Your task to perform on an android device: Go to network settings Image 0: 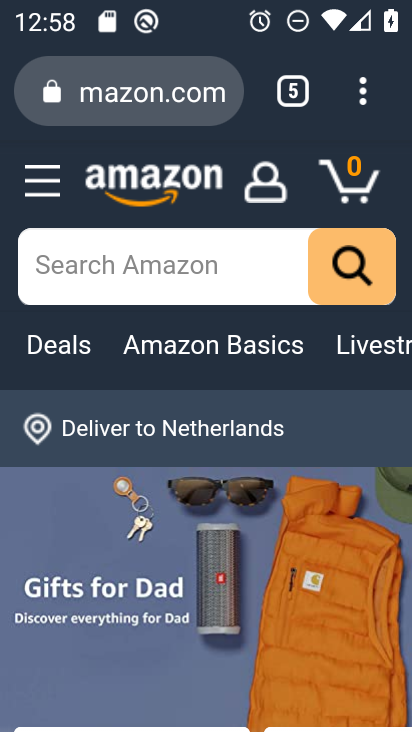
Step 0: press home button
Your task to perform on an android device: Go to network settings Image 1: 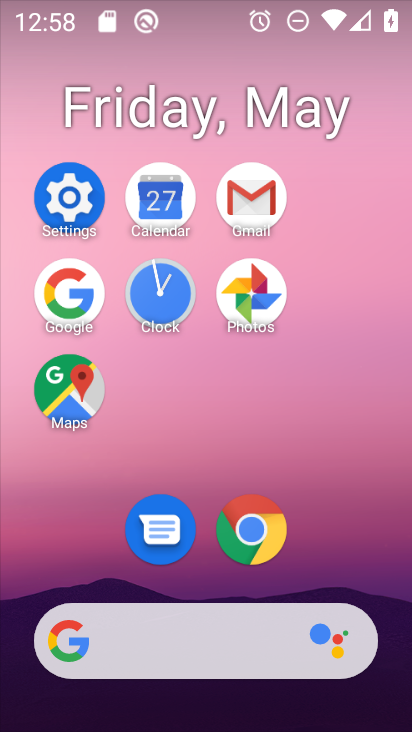
Step 1: click (62, 202)
Your task to perform on an android device: Go to network settings Image 2: 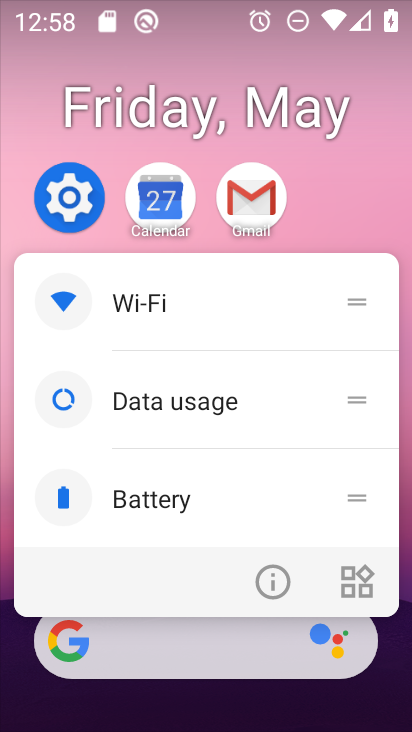
Step 2: click (83, 201)
Your task to perform on an android device: Go to network settings Image 3: 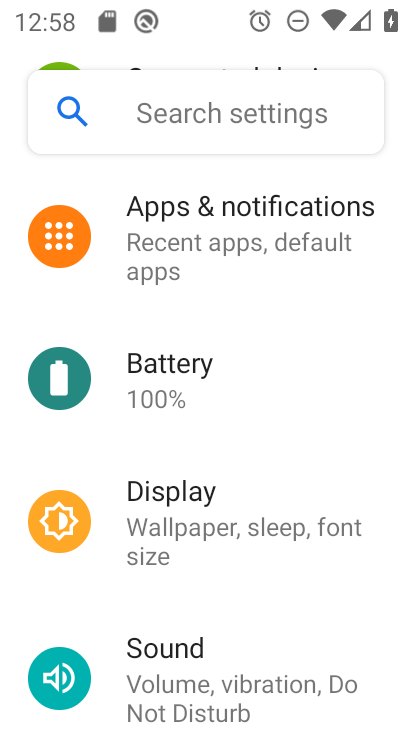
Step 3: drag from (298, 203) to (306, 720)
Your task to perform on an android device: Go to network settings Image 4: 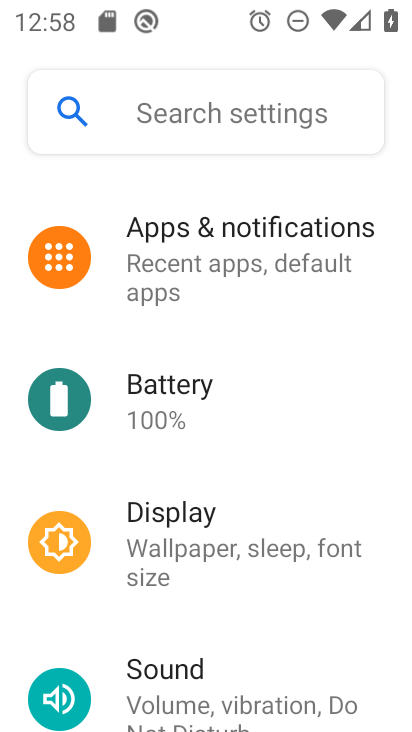
Step 4: drag from (258, 197) to (308, 627)
Your task to perform on an android device: Go to network settings Image 5: 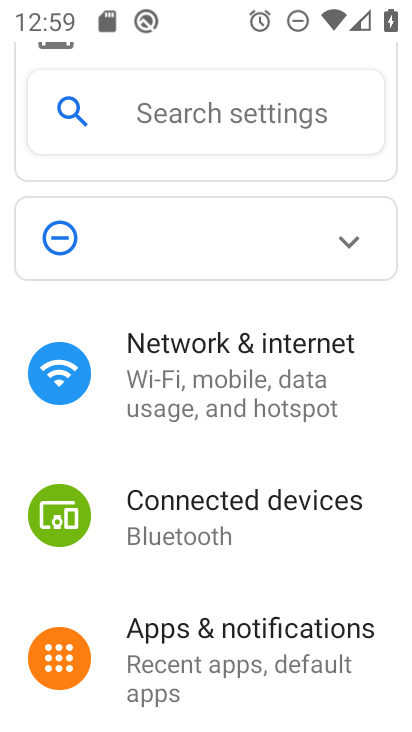
Step 5: click (269, 405)
Your task to perform on an android device: Go to network settings Image 6: 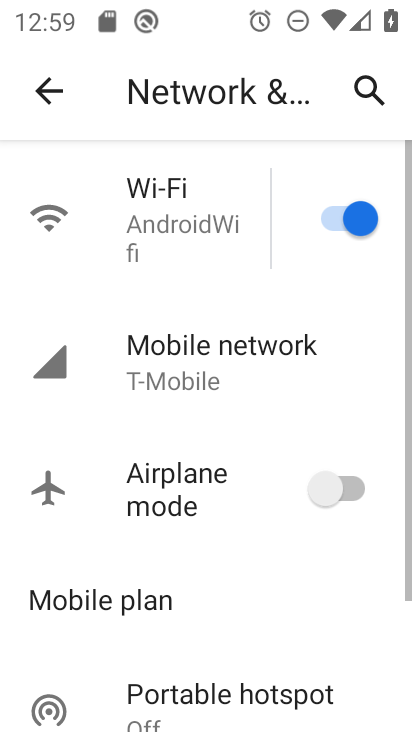
Step 6: task complete